Your task to perform on an android device: Add acer nitro to the cart on amazon, then select checkout. Image 0: 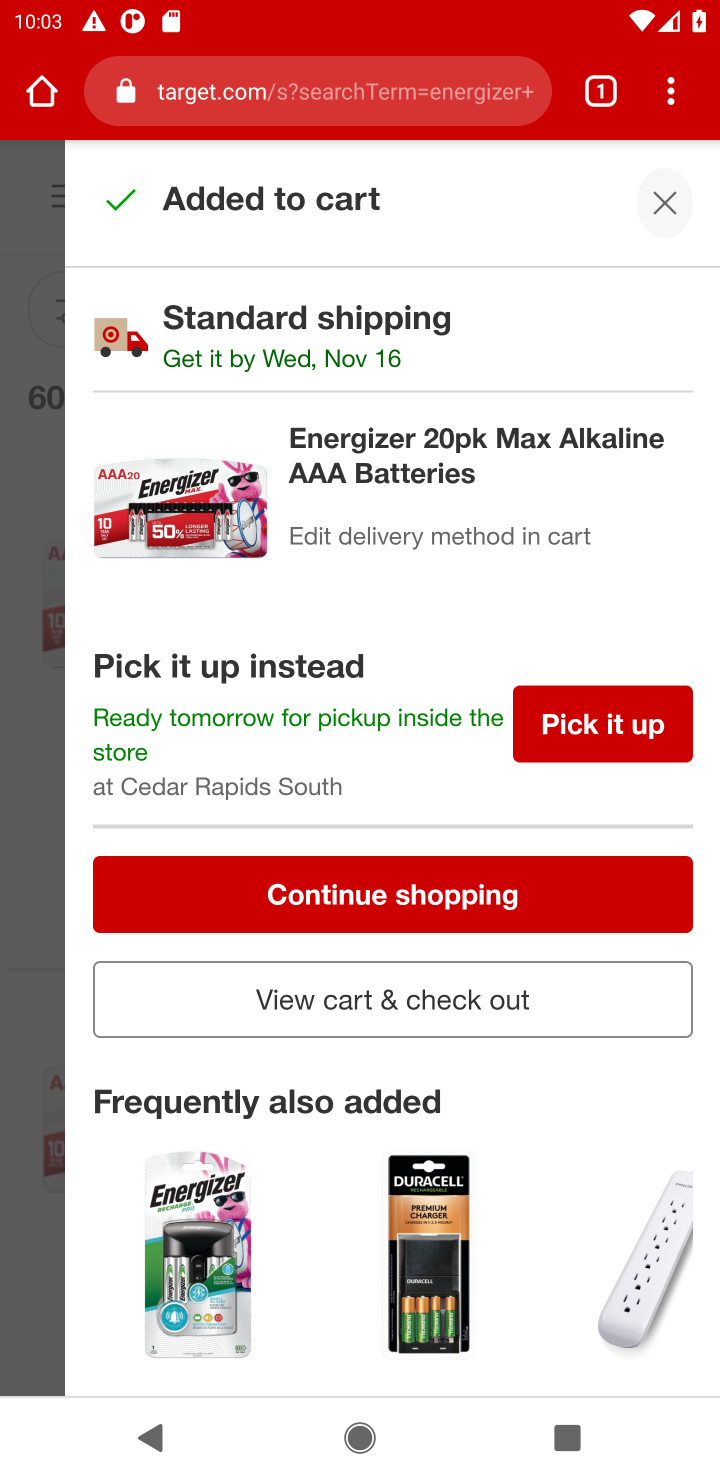
Step 0: click (379, 75)
Your task to perform on an android device: Add acer nitro to the cart on amazon, then select checkout. Image 1: 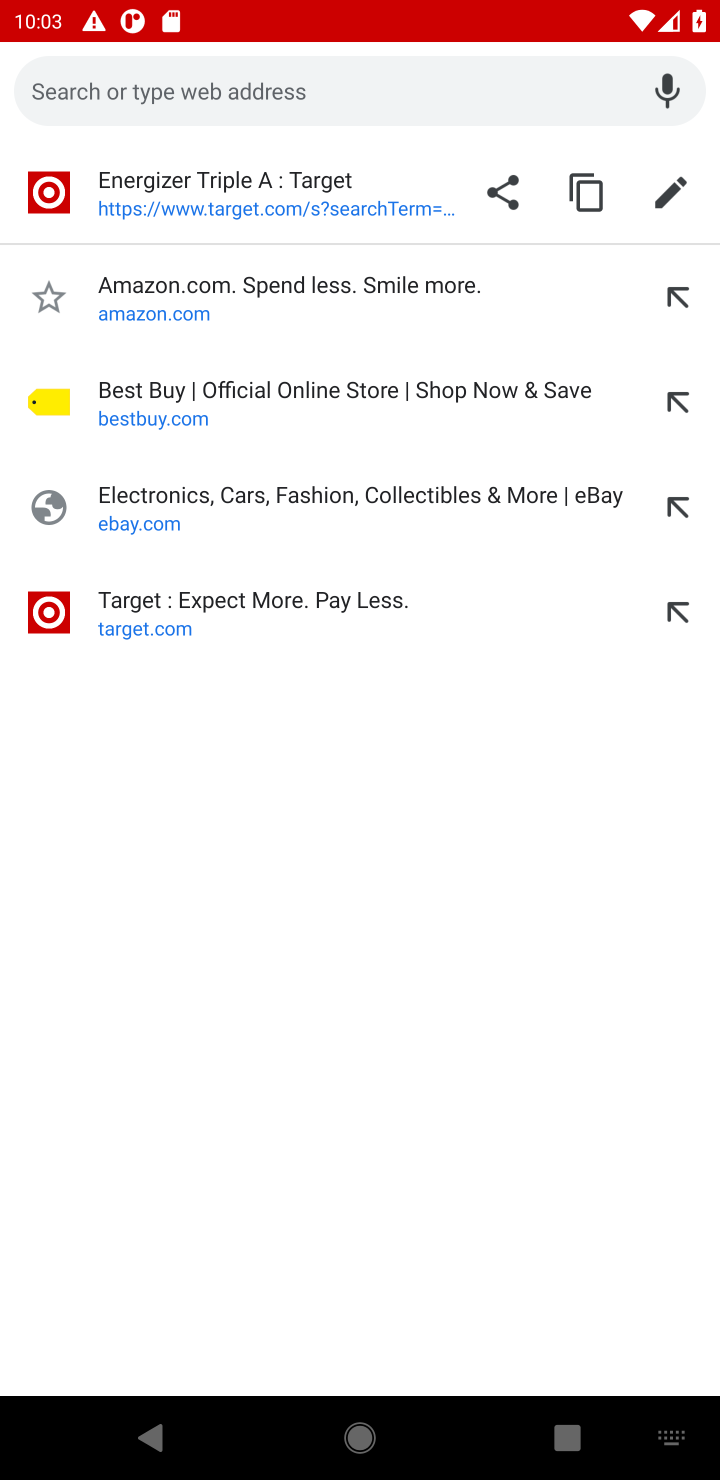
Step 1: type "amazon.com"
Your task to perform on an android device: Add acer nitro to the cart on amazon, then select checkout. Image 2: 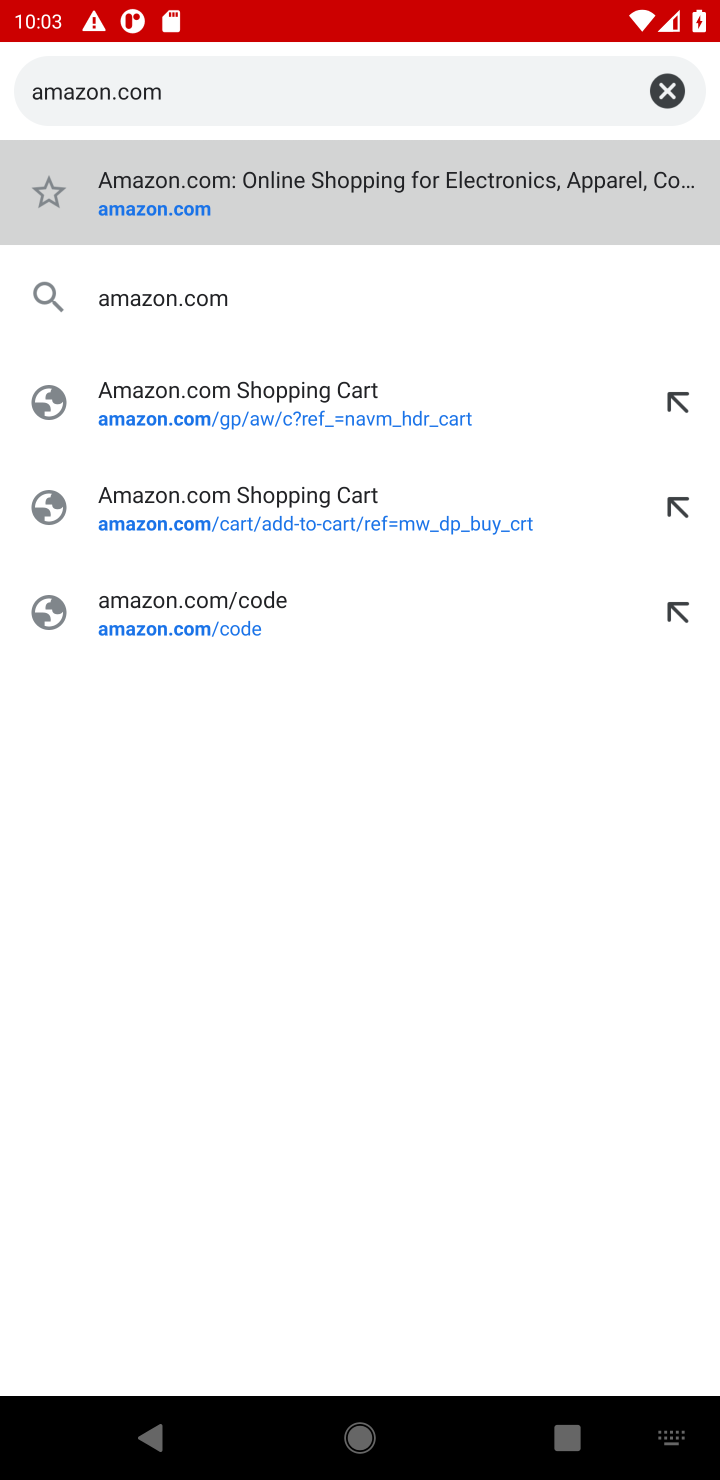
Step 2: press enter
Your task to perform on an android device: Add acer nitro to the cart on amazon, then select checkout. Image 3: 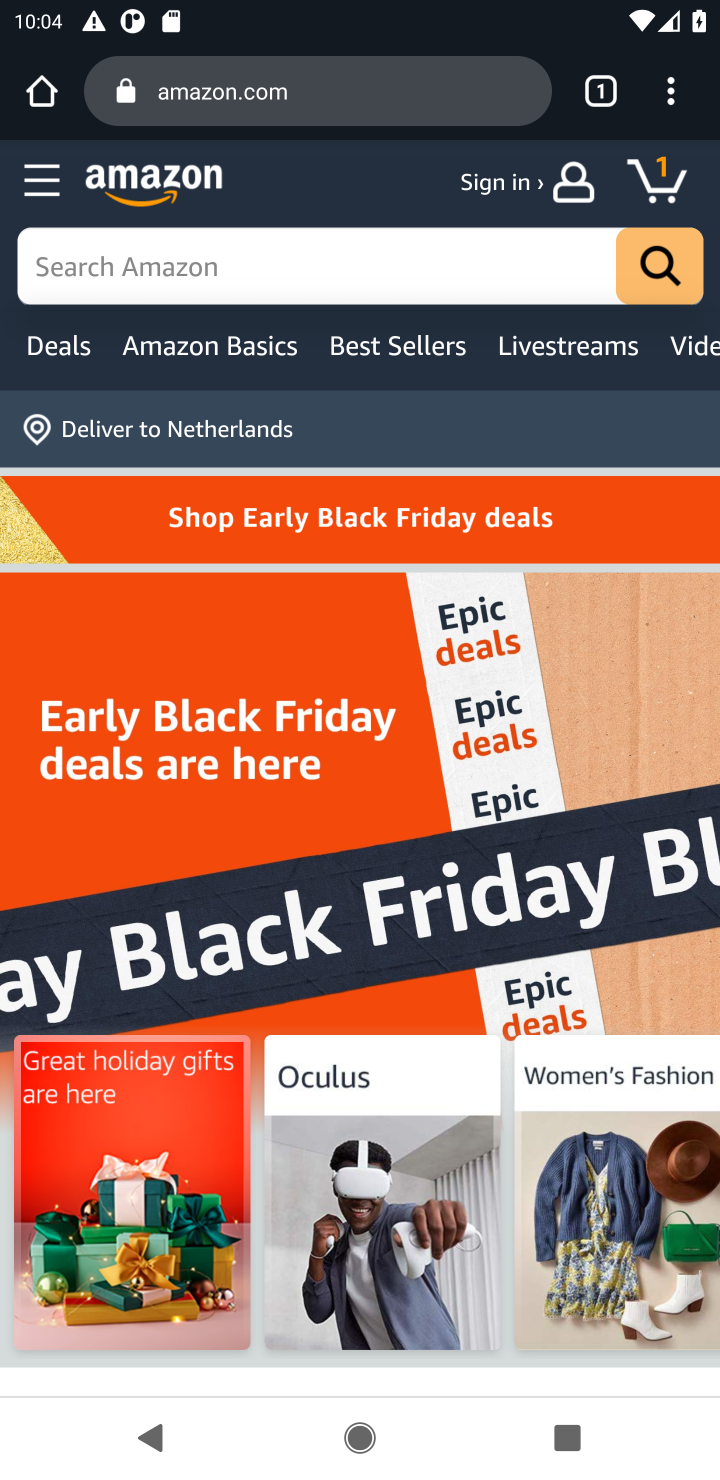
Step 3: click (434, 265)
Your task to perform on an android device: Add acer nitro to the cart on amazon, then select checkout. Image 4: 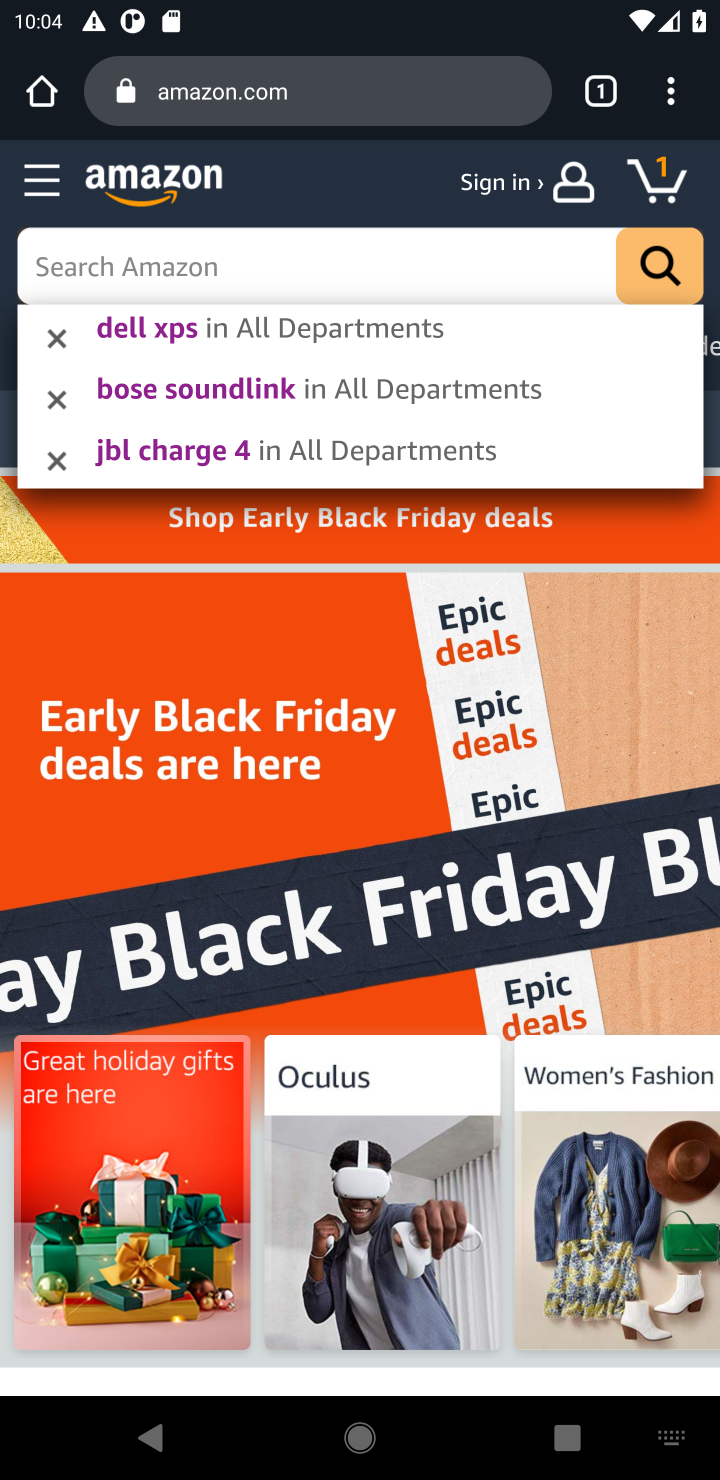
Step 4: type "acer nitro"
Your task to perform on an android device: Add acer nitro to the cart on amazon, then select checkout. Image 5: 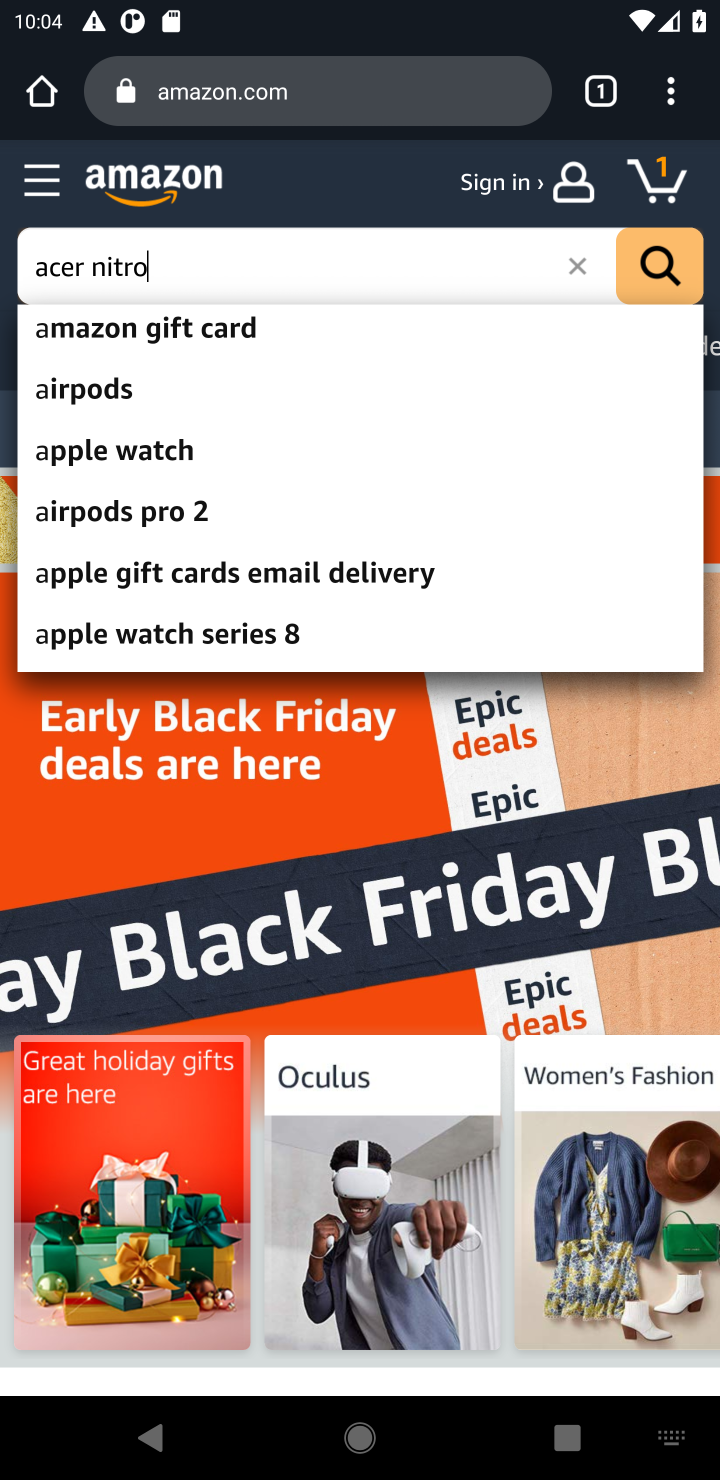
Step 5: press enter
Your task to perform on an android device: Add acer nitro to the cart on amazon, then select checkout. Image 6: 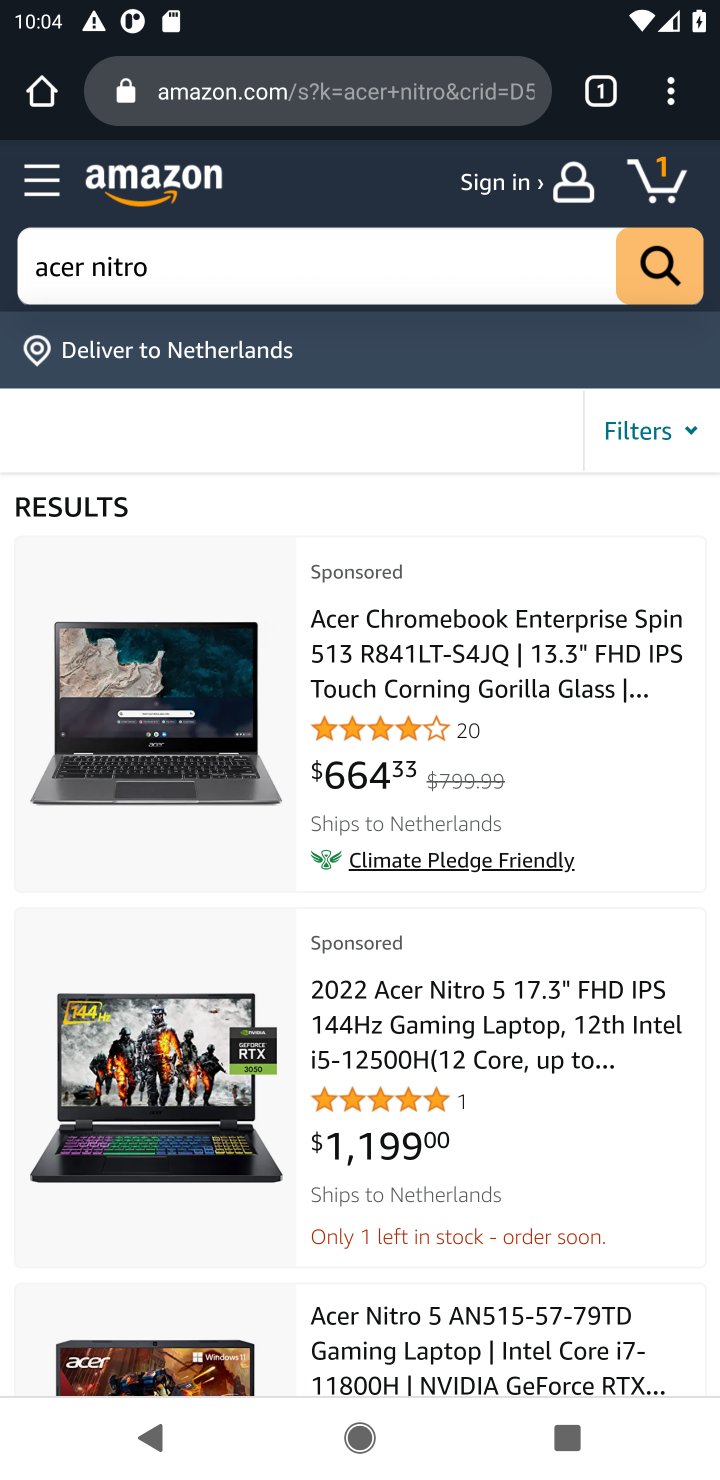
Step 6: click (410, 1344)
Your task to perform on an android device: Add acer nitro to the cart on amazon, then select checkout. Image 7: 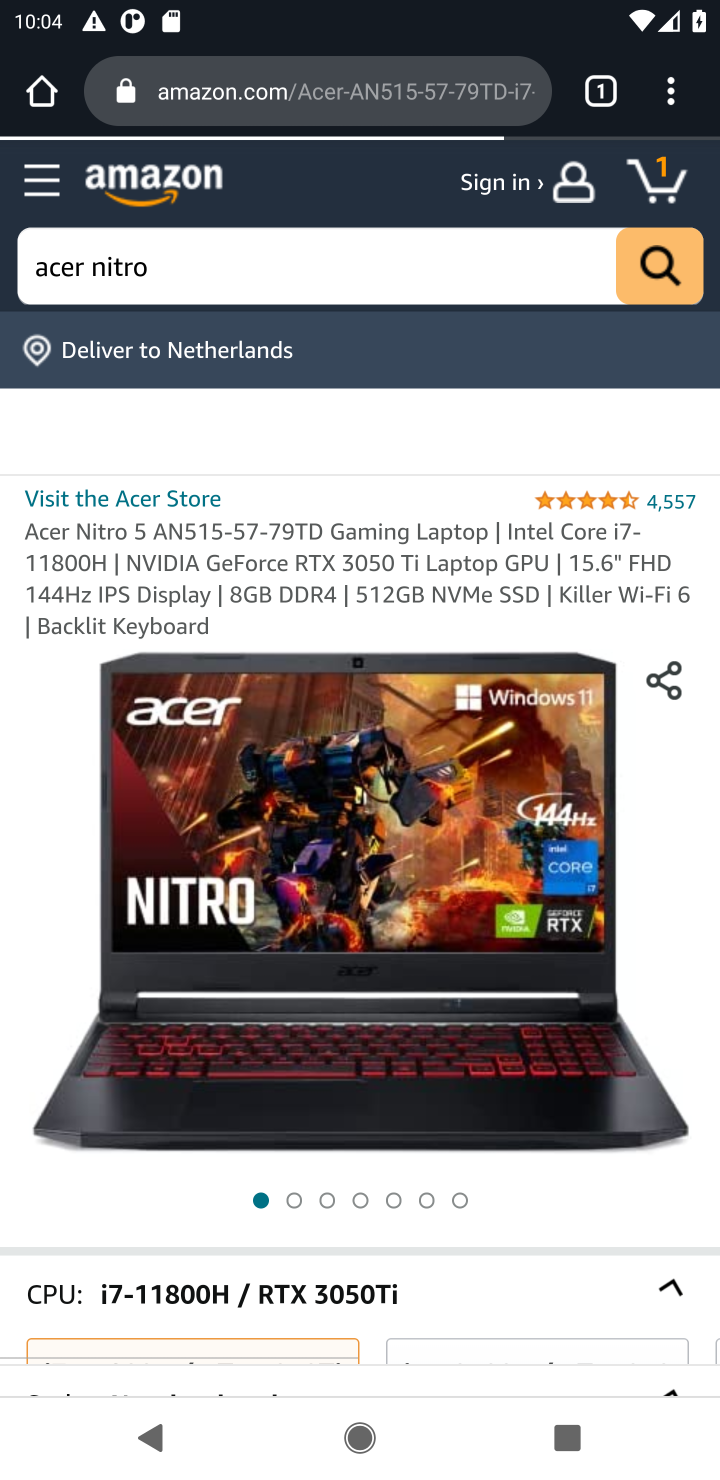
Step 7: drag from (412, 1322) to (412, 246)
Your task to perform on an android device: Add acer nitro to the cart on amazon, then select checkout. Image 8: 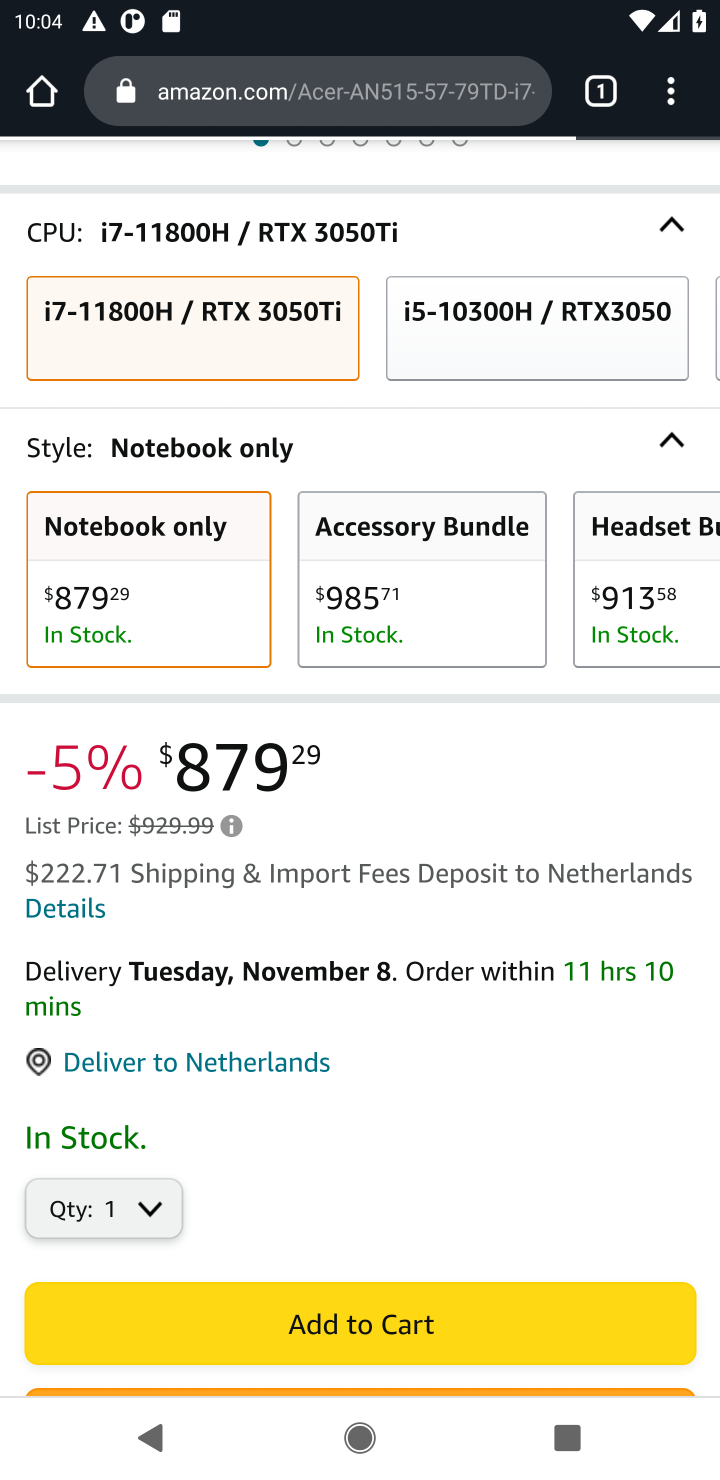
Step 8: drag from (454, 1149) to (505, 583)
Your task to perform on an android device: Add acer nitro to the cart on amazon, then select checkout. Image 9: 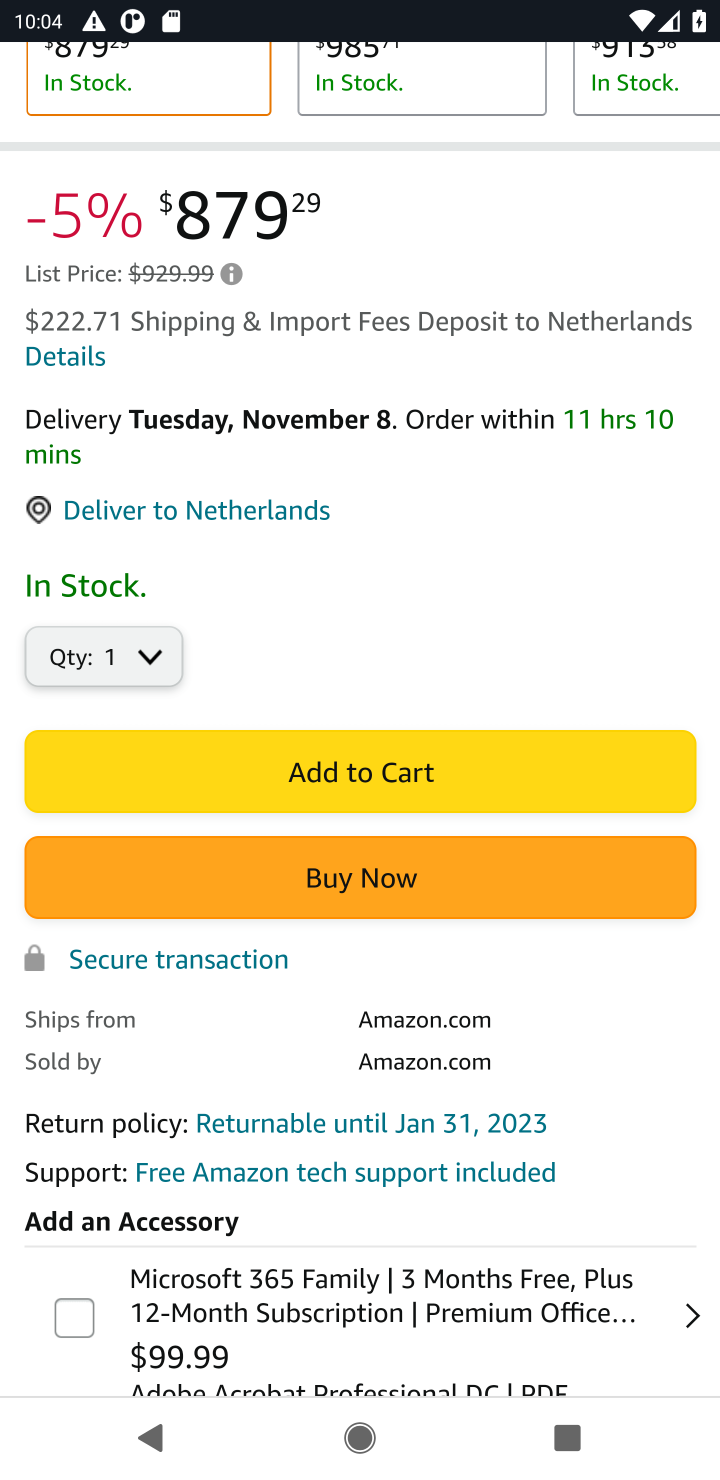
Step 9: click (425, 755)
Your task to perform on an android device: Add acer nitro to the cart on amazon, then select checkout. Image 10: 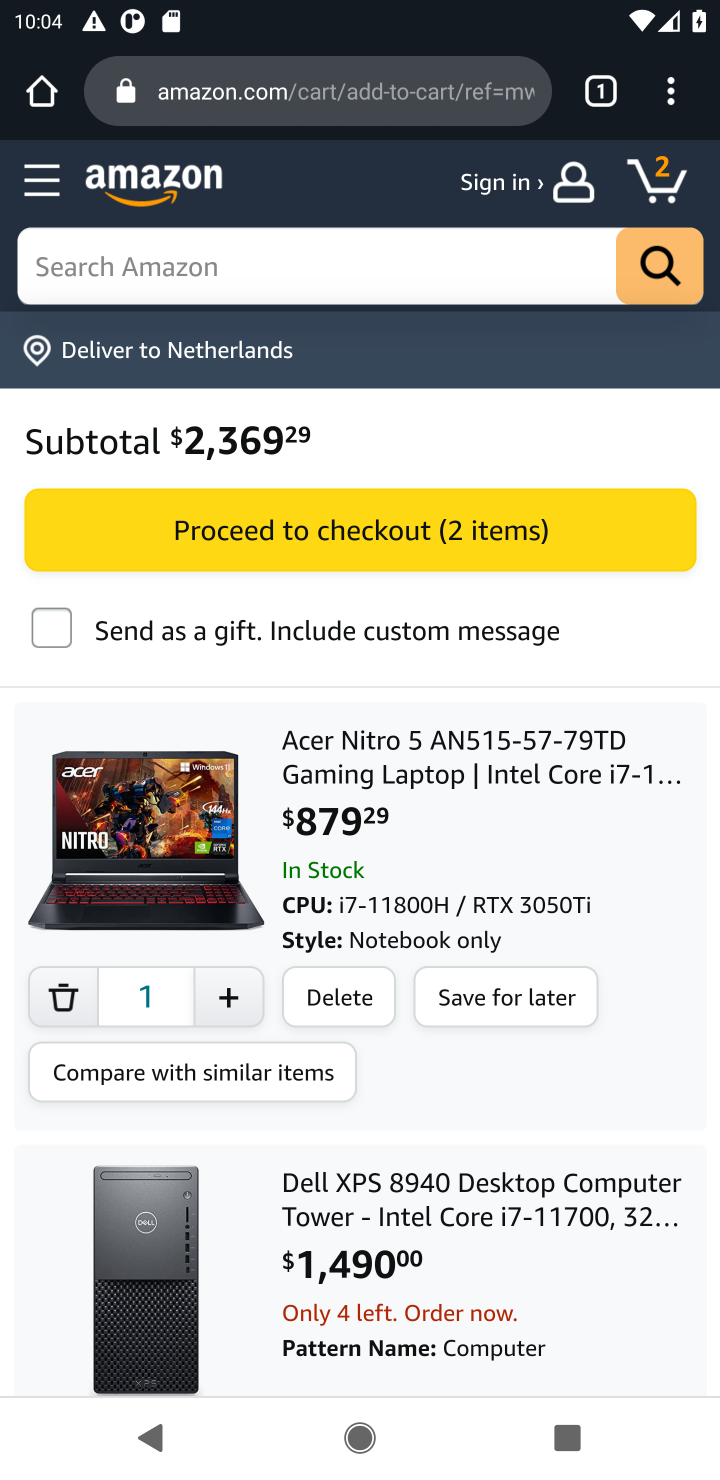
Step 10: click (424, 524)
Your task to perform on an android device: Add acer nitro to the cart on amazon, then select checkout. Image 11: 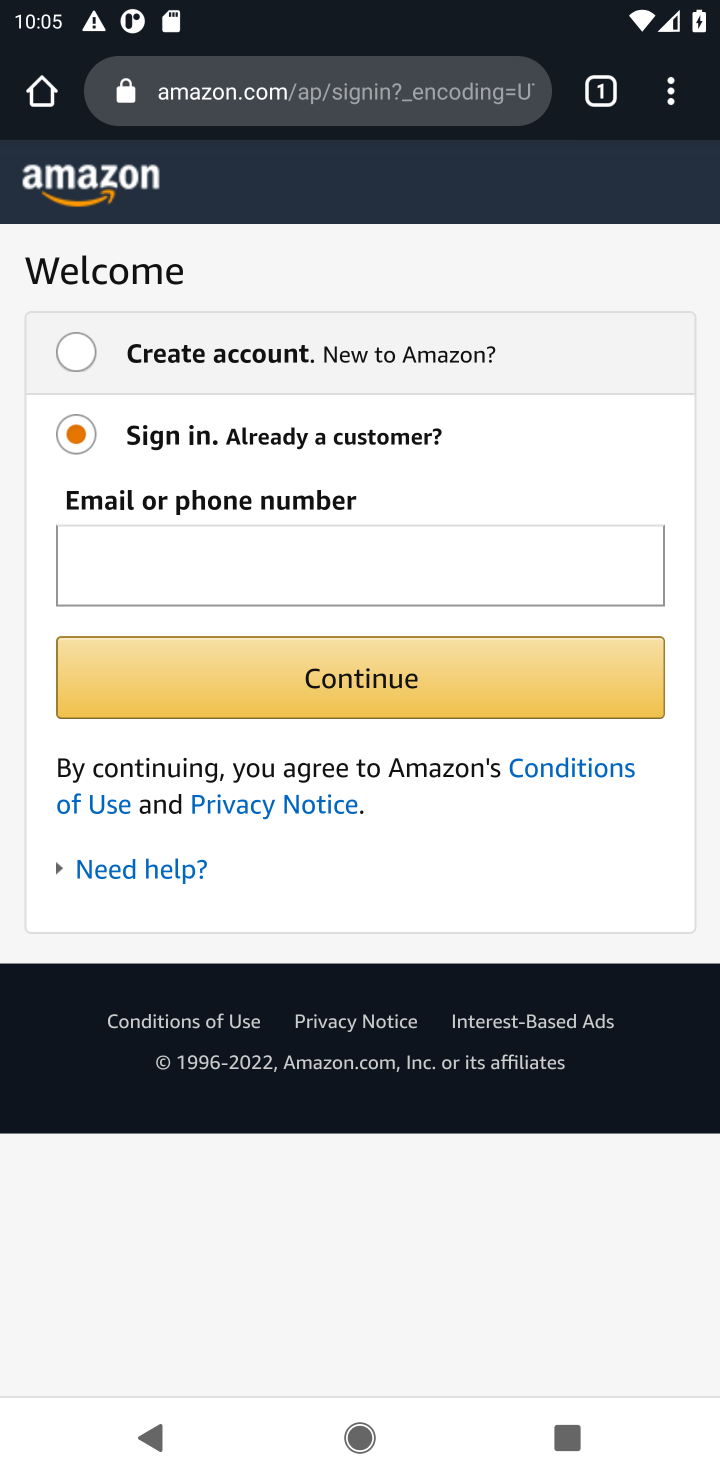
Step 11: task complete